Your task to perform on an android device: Go to CNN.com Image 0: 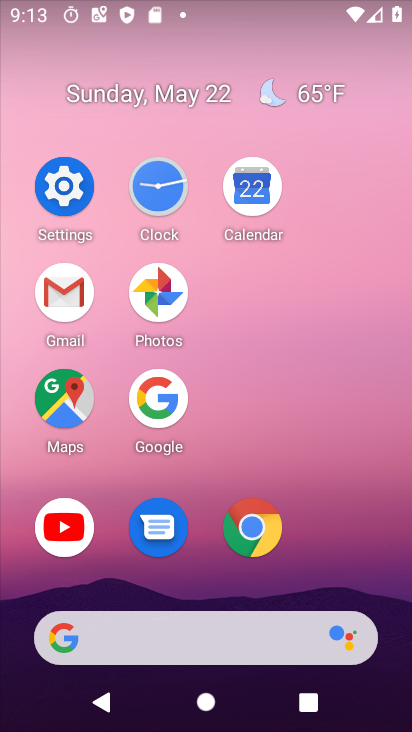
Step 0: click (251, 541)
Your task to perform on an android device: Go to CNN.com Image 1: 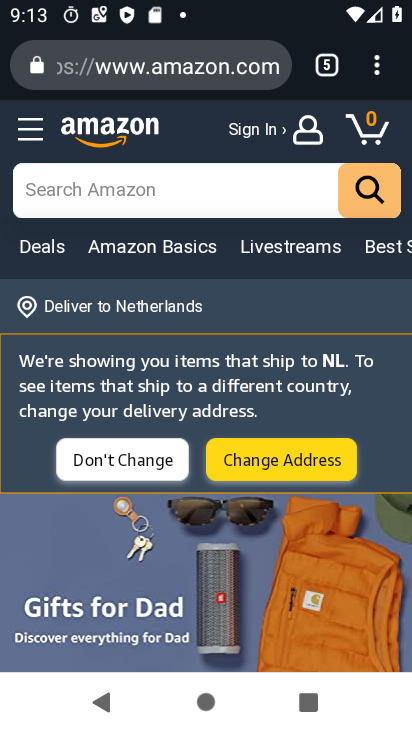
Step 1: click (332, 73)
Your task to perform on an android device: Go to CNN.com Image 2: 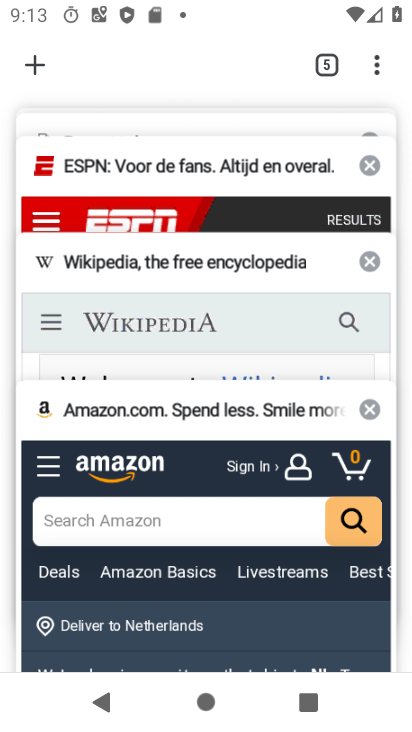
Step 2: click (34, 63)
Your task to perform on an android device: Go to CNN.com Image 3: 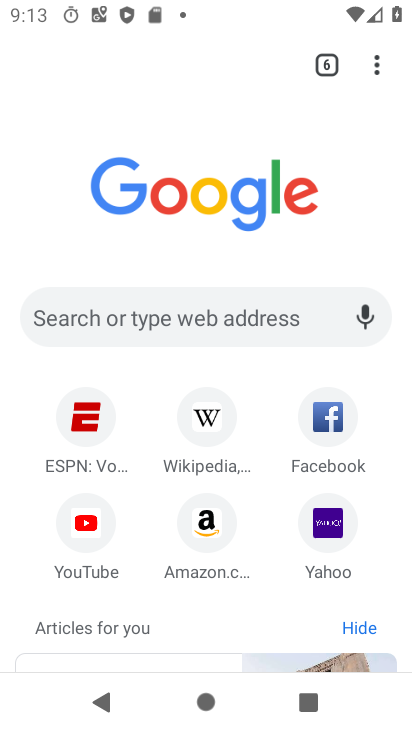
Step 3: click (157, 312)
Your task to perform on an android device: Go to CNN.com Image 4: 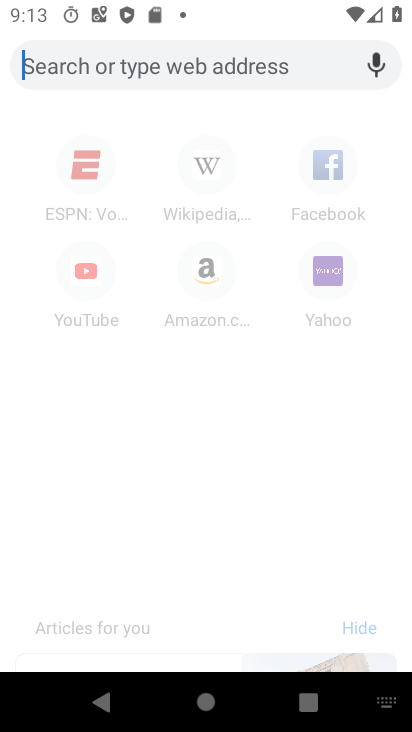
Step 4: type "cnn"
Your task to perform on an android device: Go to CNN.com Image 5: 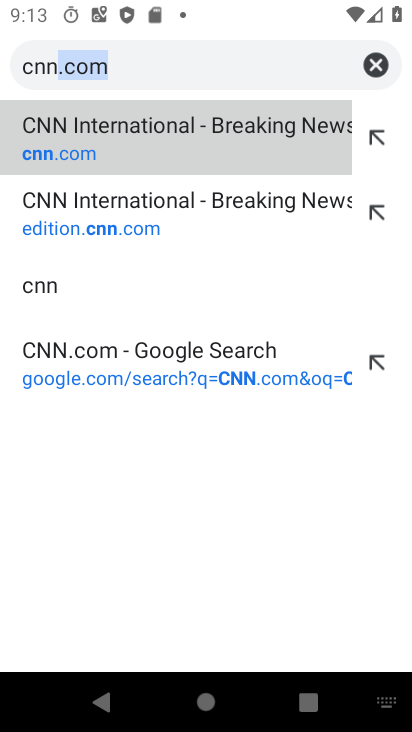
Step 5: click (78, 153)
Your task to perform on an android device: Go to CNN.com Image 6: 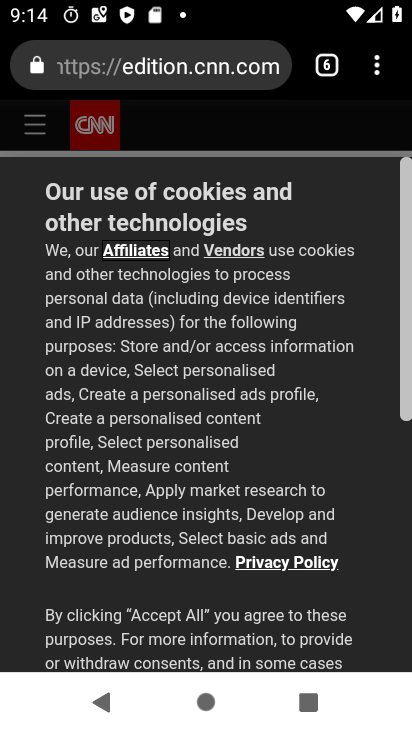
Step 6: task complete